Your task to perform on an android device: turn on sleep mode Image 0: 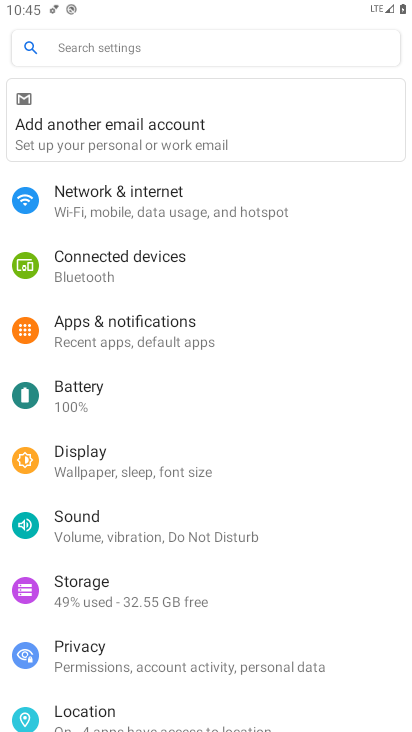
Step 0: press home button
Your task to perform on an android device: turn on sleep mode Image 1: 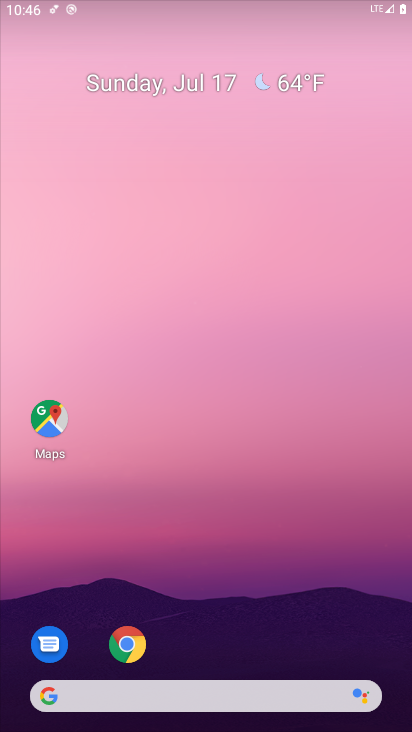
Step 1: drag from (277, 586) to (257, 64)
Your task to perform on an android device: turn on sleep mode Image 2: 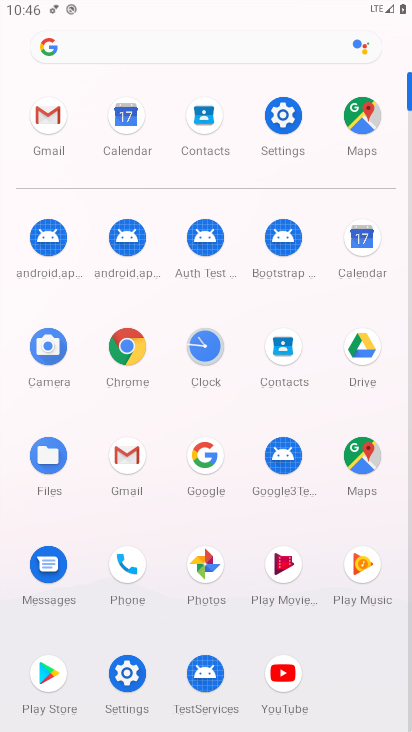
Step 2: click (289, 113)
Your task to perform on an android device: turn on sleep mode Image 3: 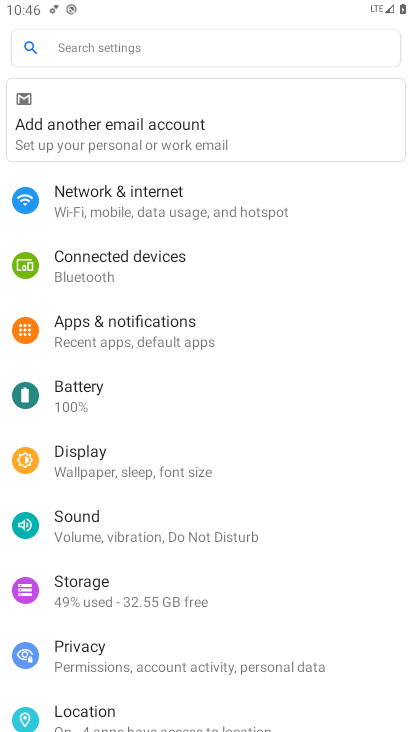
Step 3: click (75, 454)
Your task to perform on an android device: turn on sleep mode Image 4: 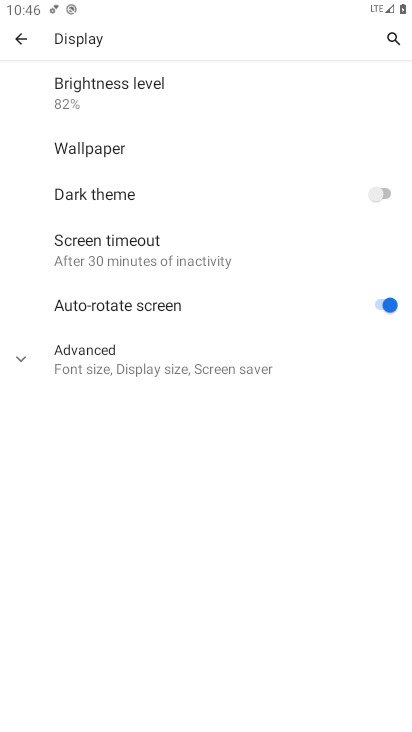
Step 4: click (19, 357)
Your task to perform on an android device: turn on sleep mode Image 5: 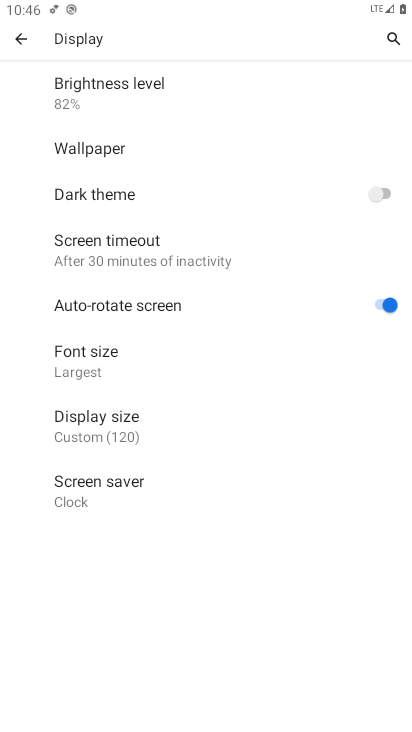
Step 5: task complete